Your task to perform on an android device: Find the nearest electronics store that's open Image 0: 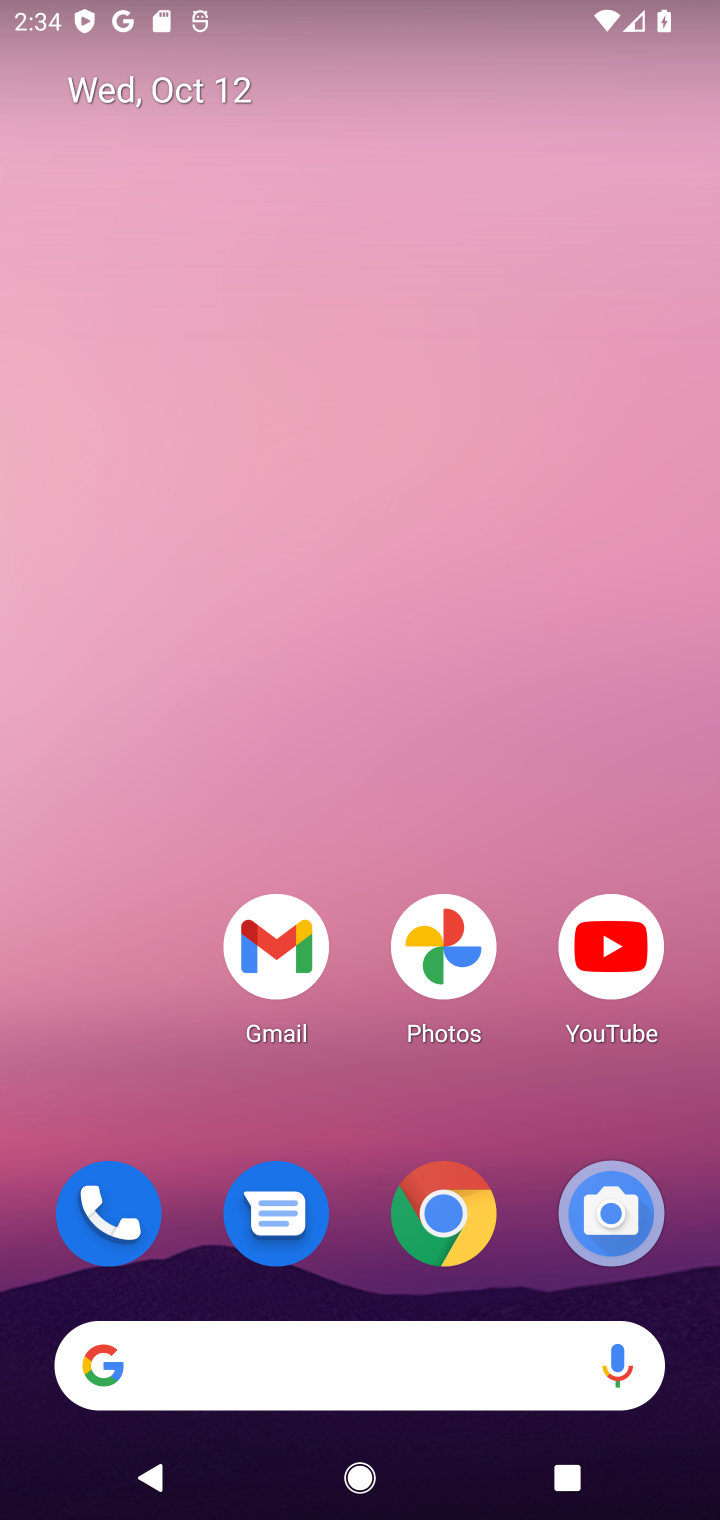
Step 0: click (291, 1377)
Your task to perform on an android device: Find the nearest electronics store that's open Image 1: 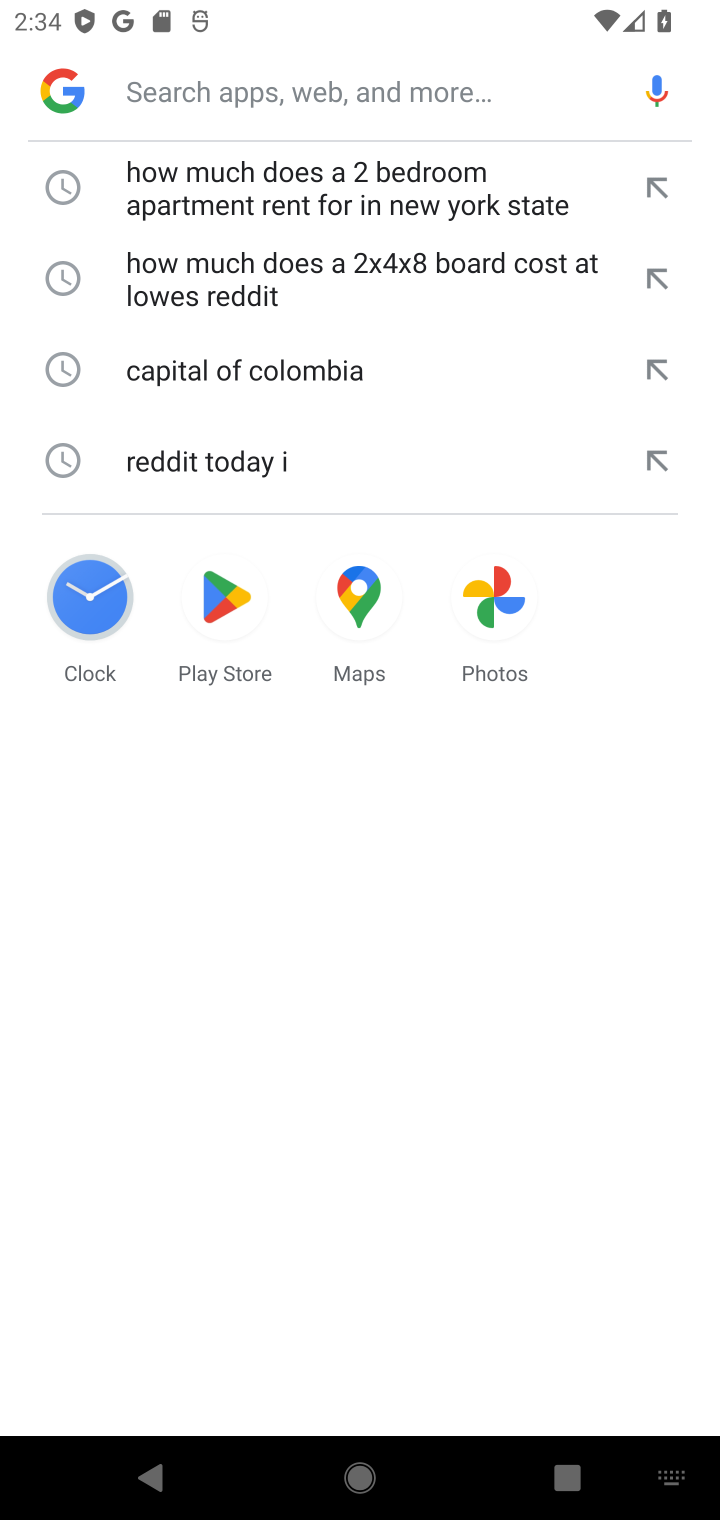
Step 1: click (200, 102)
Your task to perform on an android device: Find the nearest electronics store that's open Image 2: 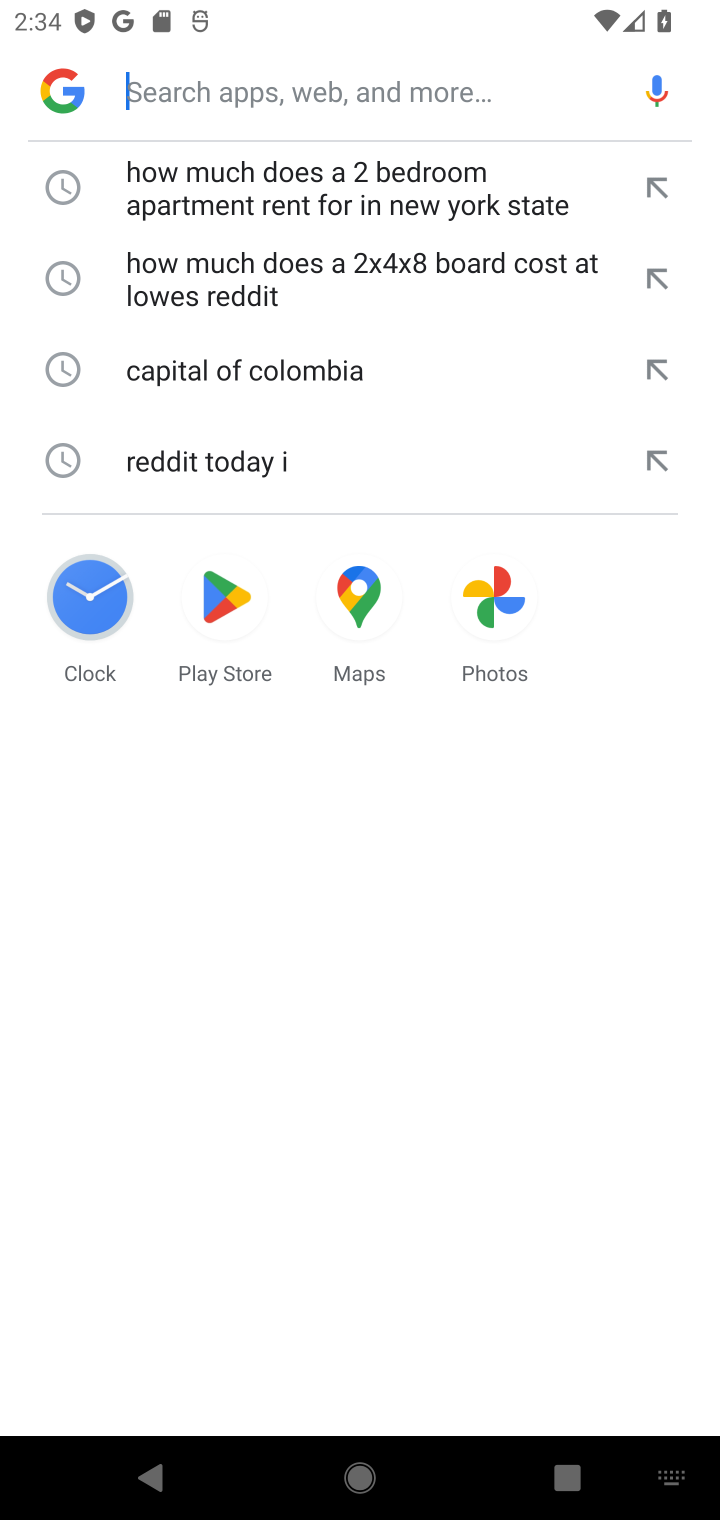
Step 2: type "Find the nearest electronics store that's open"
Your task to perform on an android device: Find the nearest electronics store that's open Image 3: 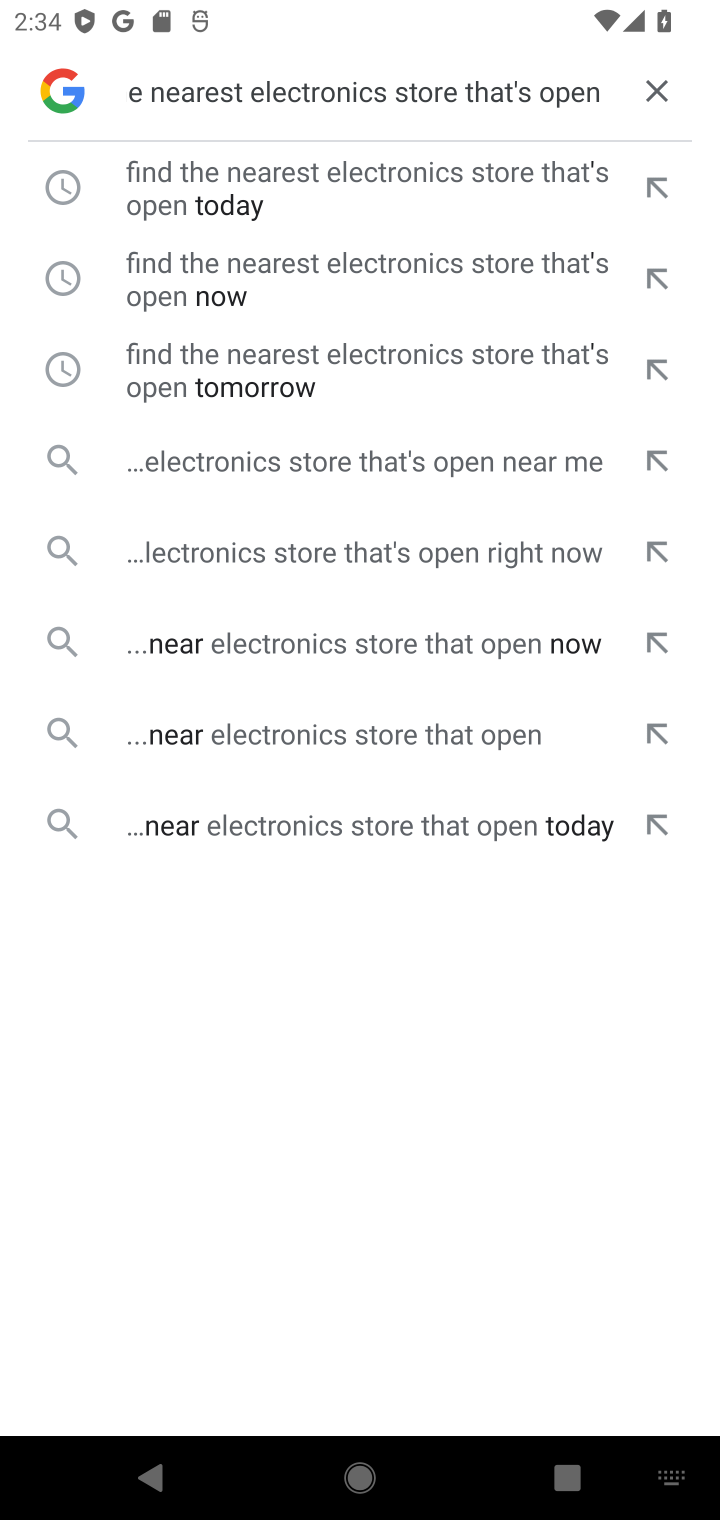
Step 3: click (299, 199)
Your task to perform on an android device: Find the nearest electronics store that's open Image 4: 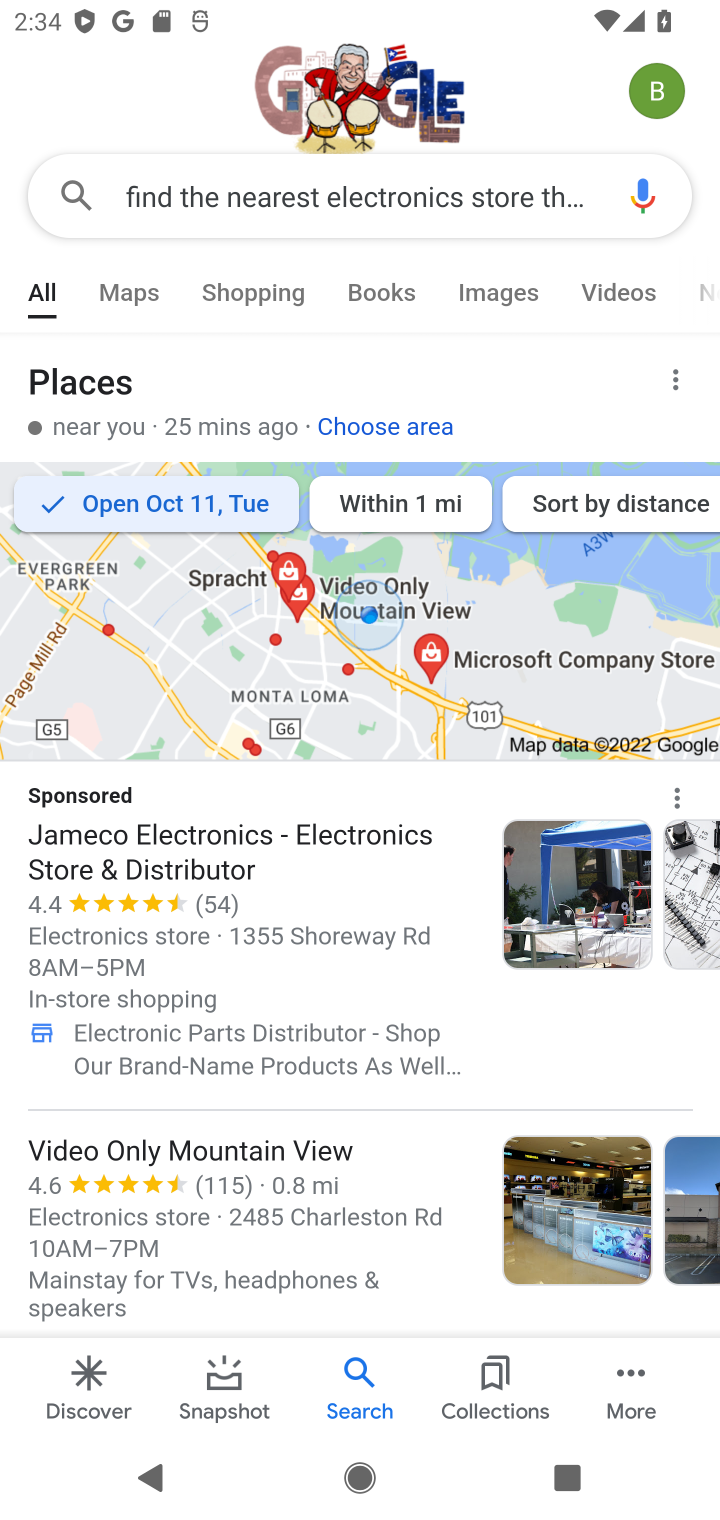
Step 4: task complete